Your task to perform on an android device: delete location history Image 0: 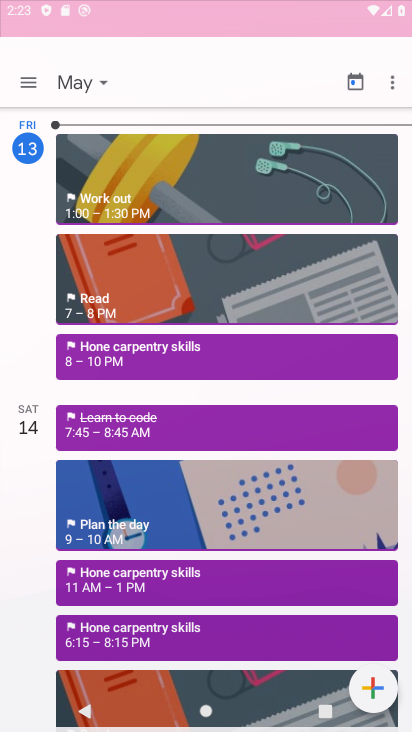
Step 0: click (272, 269)
Your task to perform on an android device: delete location history Image 1: 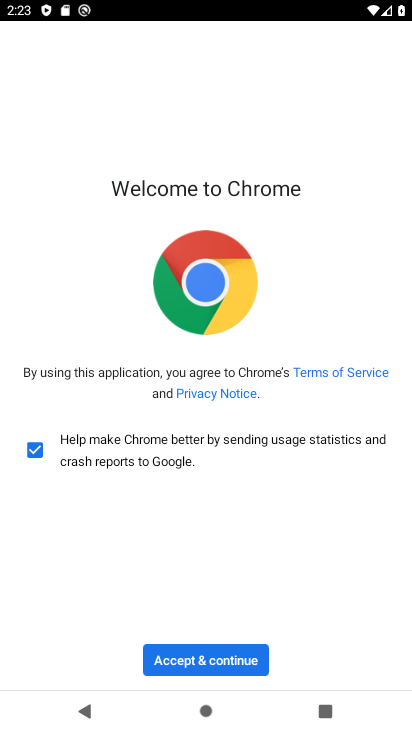
Step 1: click (218, 658)
Your task to perform on an android device: delete location history Image 2: 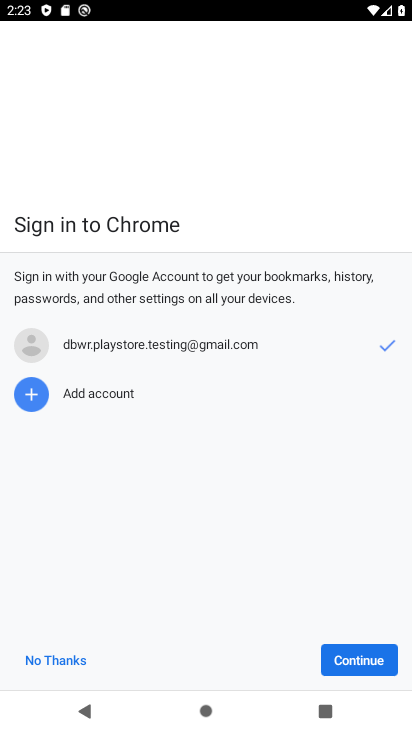
Step 2: click (344, 656)
Your task to perform on an android device: delete location history Image 3: 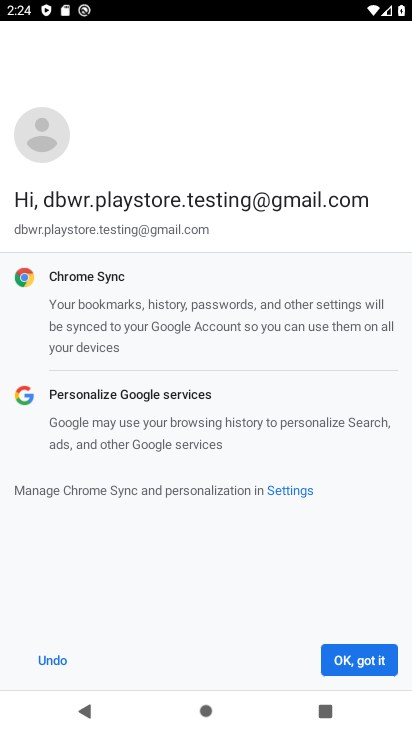
Step 3: click (350, 654)
Your task to perform on an android device: delete location history Image 4: 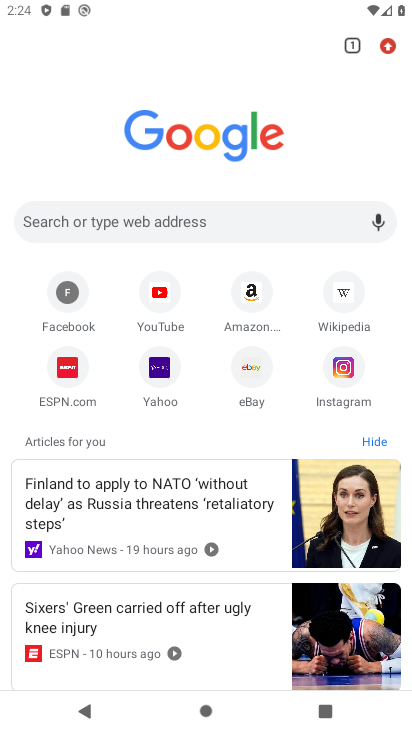
Step 4: press home button
Your task to perform on an android device: delete location history Image 5: 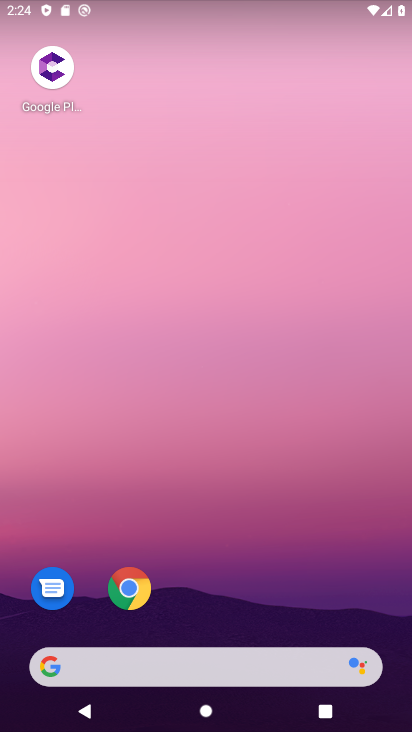
Step 5: drag from (60, 420) to (357, 416)
Your task to perform on an android device: delete location history Image 6: 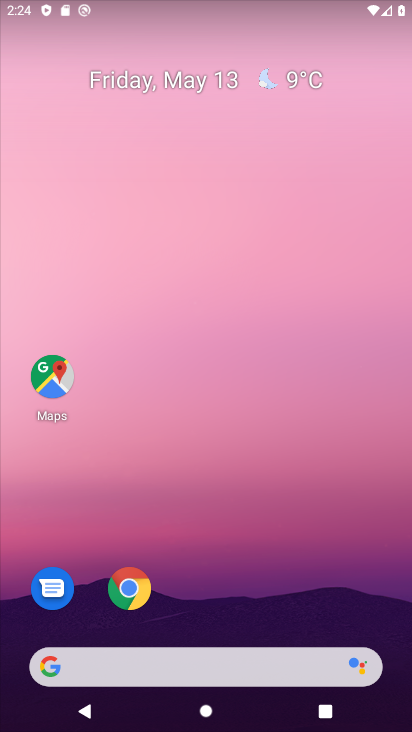
Step 6: click (35, 366)
Your task to perform on an android device: delete location history Image 7: 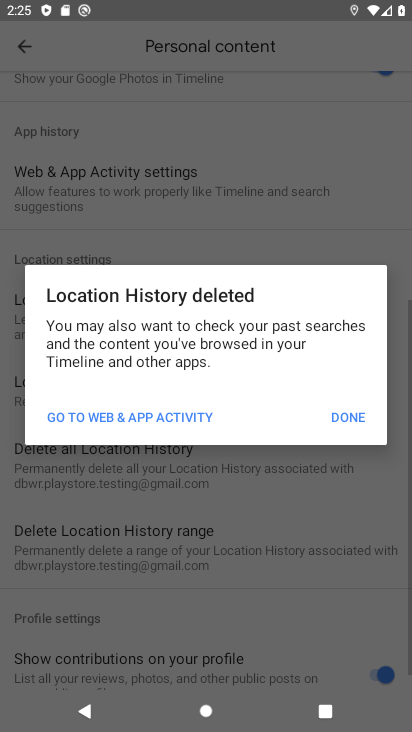
Step 7: click (354, 426)
Your task to perform on an android device: delete location history Image 8: 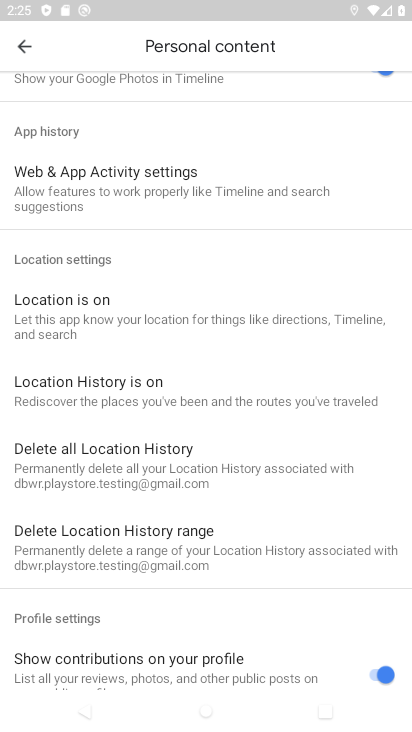
Step 8: click (223, 460)
Your task to perform on an android device: delete location history Image 9: 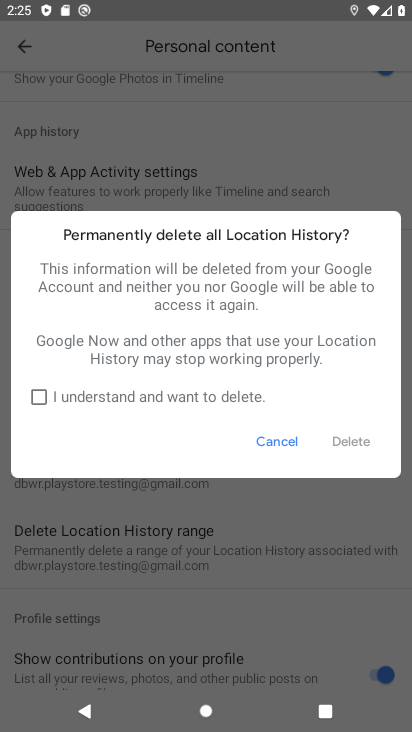
Step 9: click (222, 391)
Your task to perform on an android device: delete location history Image 10: 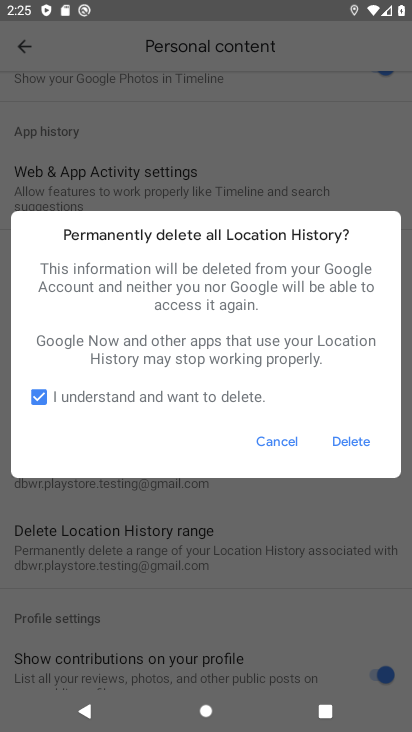
Step 10: click (367, 451)
Your task to perform on an android device: delete location history Image 11: 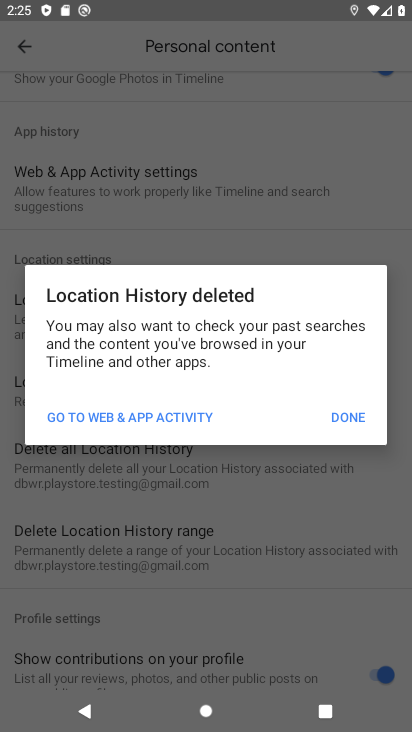
Step 11: click (352, 412)
Your task to perform on an android device: delete location history Image 12: 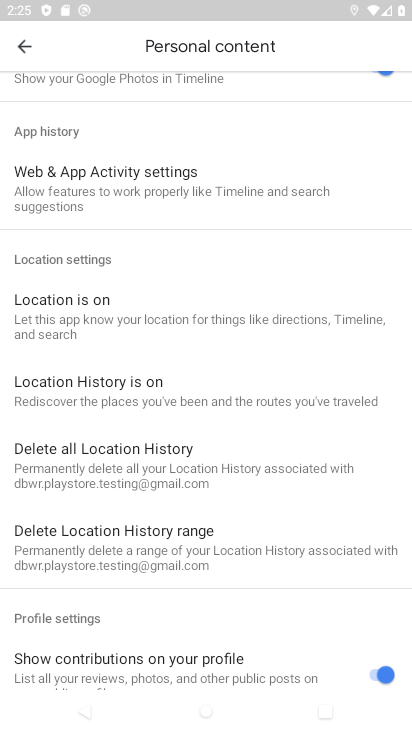
Step 12: task complete